Your task to perform on an android device: View the shopping cart on bestbuy. Search for "acer nitro" on bestbuy, select the first entry, add it to the cart, then select checkout. Image 0: 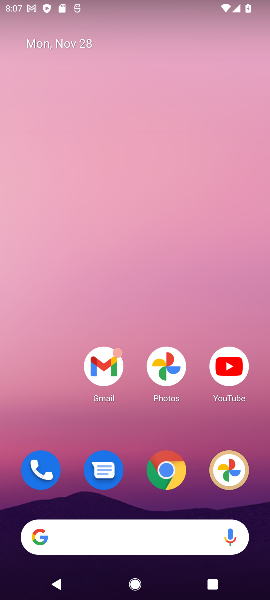
Step 0: drag from (140, 317) to (159, 191)
Your task to perform on an android device: View the shopping cart on bestbuy. Search for "acer nitro" on bestbuy, select the first entry, add it to the cart, then select checkout. Image 1: 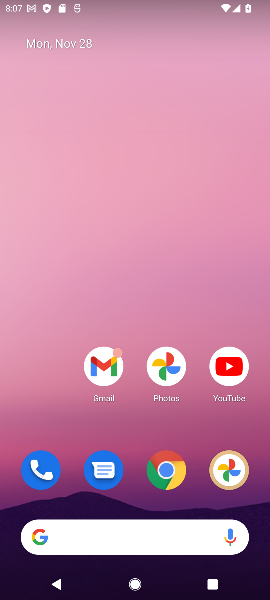
Step 1: click (114, 530)
Your task to perform on an android device: View the shopping cart on bestbuy. Search for "acer nitro" on bestbuy, select the first entry, add it to the cart, then select checkout. Image 2: 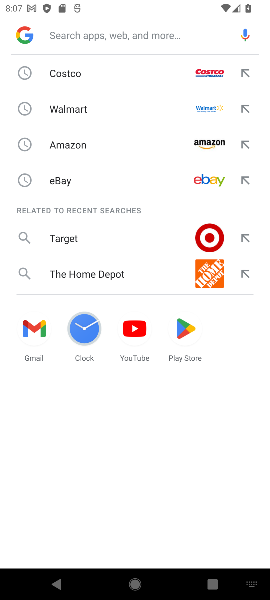
Step 2: type "bestbuy"
Your task to perform on an android device: View the shopping cart on bestbuy. Search for "acer nitro" on bestbuy, select the first entry, add it to the cart, then select checkout. Image 3: 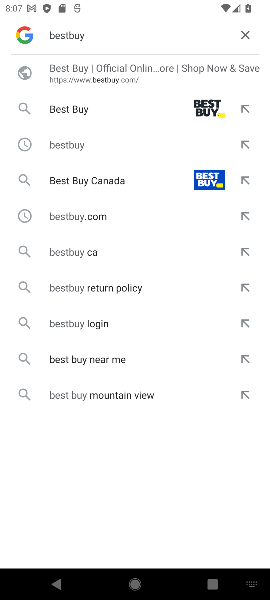
Step 3: click (60, 107)
Your task to perform on an android device: View the shopping cart on bestbuy. Search for "acer nitro" on bestbuy, select the first entry, add it to the cart, then select checkout. Image 4: 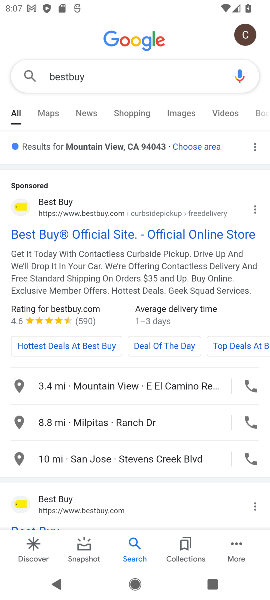
Step 4: click (48, 202)
Your task to perform on an android device: View the shopping cart on bestbuy. Search for "acer nitro" on bestbuy, select the first entry, add it to the cart, then select checkout. Image 5: 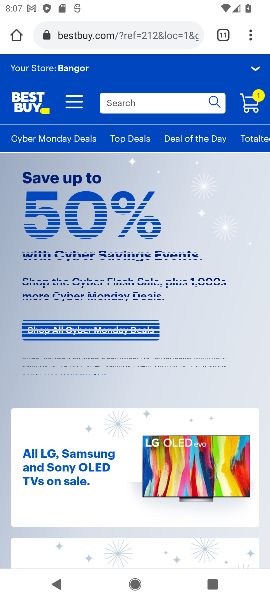
Step 5: click (256, 98)
Your task to perform on an android device: View the shopping cart on bestbuy. Search for "acer nitro" on bestbuy, select the first entry, add it to the cart, then select checkout. Image 6: 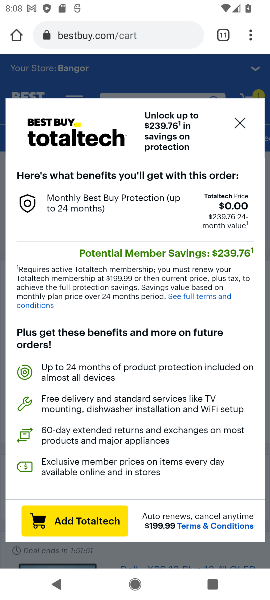
Step 6: click (232, 122)
Your task to perform on an android device: View the shopping cart on bestbuy. Search for "acer nitro" on bestbuy, select the first entry, add it to the cart, then select checkout. Image 7: 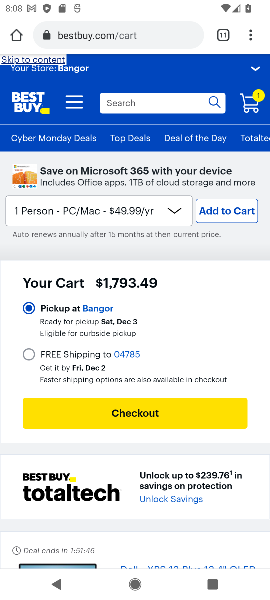
Step 7: drag from (173, 526) to (169, 269)
Your task to perform on an android device: View the shopping cart on bestbuy. Search for "acer nitro" on bestbuy, select the first entry, add it to the cart, then select checkout. Image 8: 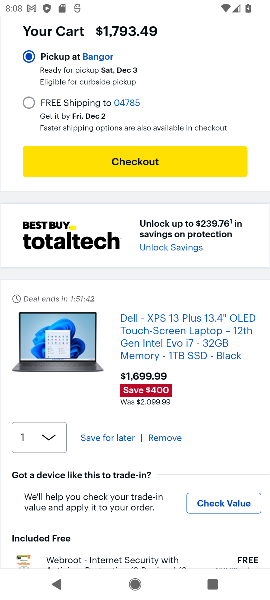
Step 8: click (177, 436)
Your task to perform on an android device: View the shopping cart on bestbuy. Search for "acer nitro" on bestbuy, select the first entry, add it to the cart, then select checkout. Image 9: 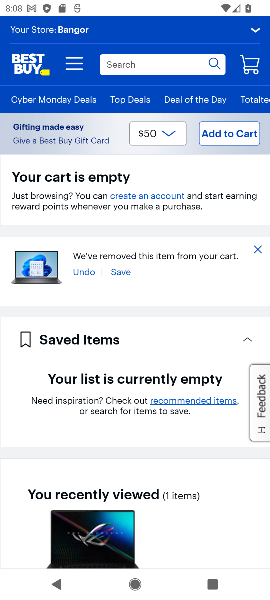
Step 9: click (152, 67)
Your task to perform on an android device: View the shopping cart on bestbuy. Search for "acer nitro" on bestbuy, select the first entry, add it to the cart, then select checkout. Image 10: 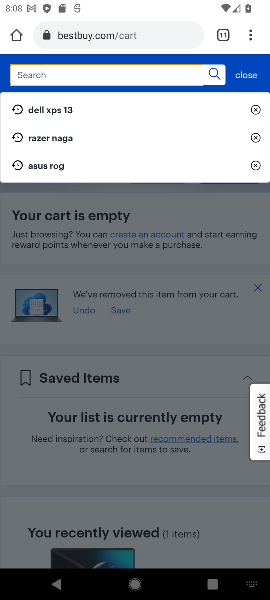
Step 10: type "acer nitro"
Your task to perform on an android device: View the shopping cart on bestbuy. Search for "acer nitro" on bestbuy, select the first entry, add it to the cart, then select checkout. Image 11: 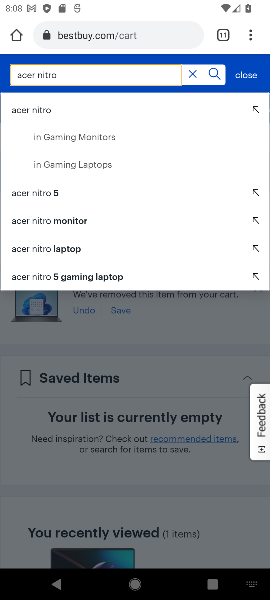
Step 11: click (215, 75)
Your task to perform on an android device: View the shopping cart on bestbuy. Search for "acer nitro" on bestbuy, select the first entry, add it to the cart, then select checkout. Image 12: 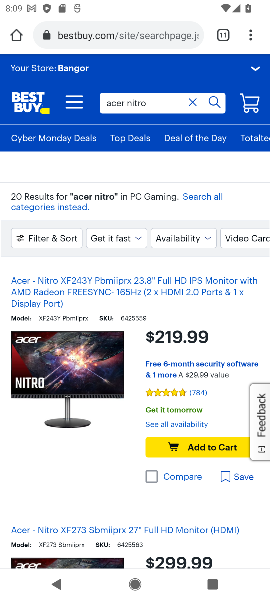
Step 12: click (198, 446)
Your task to perform on an android device: View the shopping cart on bestbuy. Search for "acer nitro" on bestbuy, select the first entry, add it to the cart, then select checkout. Image 13: 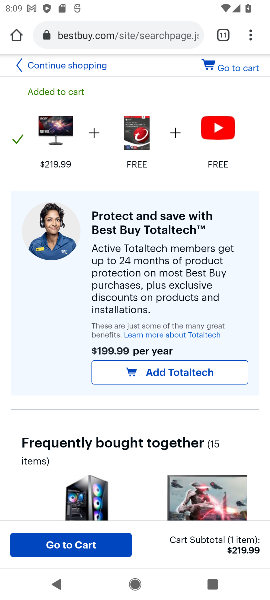
Step 13: click (73, 539)
Your task to perform on an android device: View the shopping cart on bestbuy. Search for "acer nitro" on bestbuy, select the first entry, add it to the cart, then select checkout. Image 14: 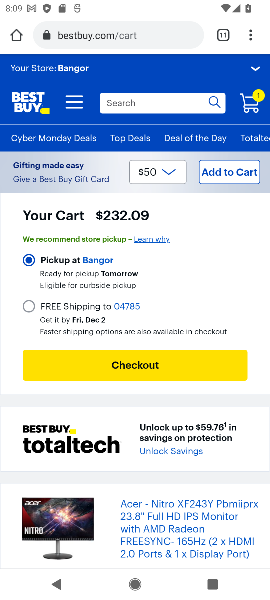
Step 14: click (116, 362)
Your task to perform on an android device: View the shopping cart on bestbuy. Search for "acer nitro" on bestbuy, select the first entry, add it to the cart, then select checkout. Image 15: 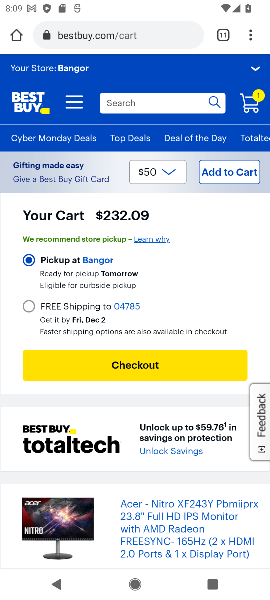
Step 15: click (139, 362)
Your task to perform on an android device: View the shopping cart on bestbuy. Search for "acer nitro" on bestbuy, select the first entry, add it to the cart, then select checkout. Image 16: 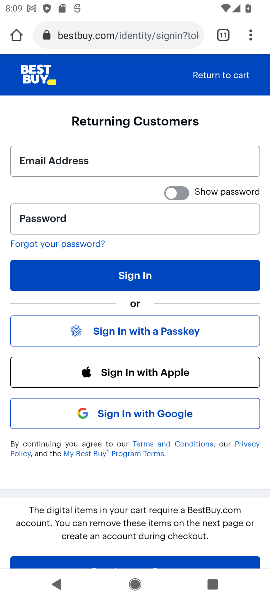
Step 16: task complete